Your task to perform on an android device: Show me the alarms in the clock app Image 0: 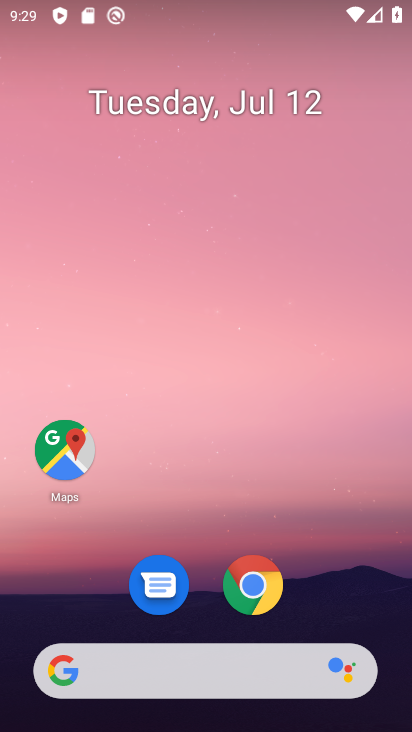
Step 0: drag from (187, 670) to (272, 163)
Your task to perform on an android device: Show me the alarms in the clock app Image 1: 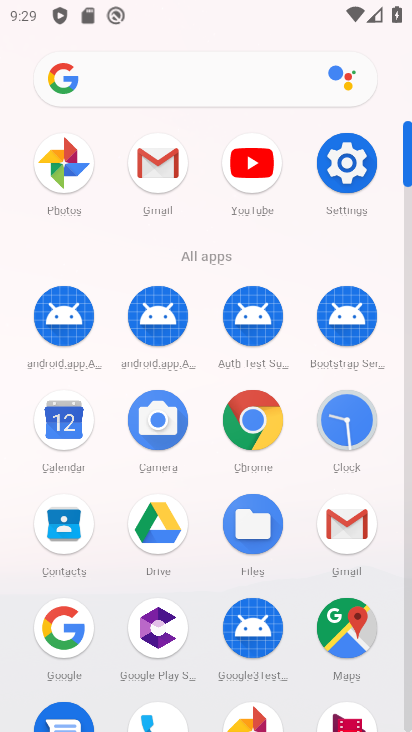
Step 1: click (350, 434)
Your task to perform on an android device: Show me the alarms in the clock app Image 2: 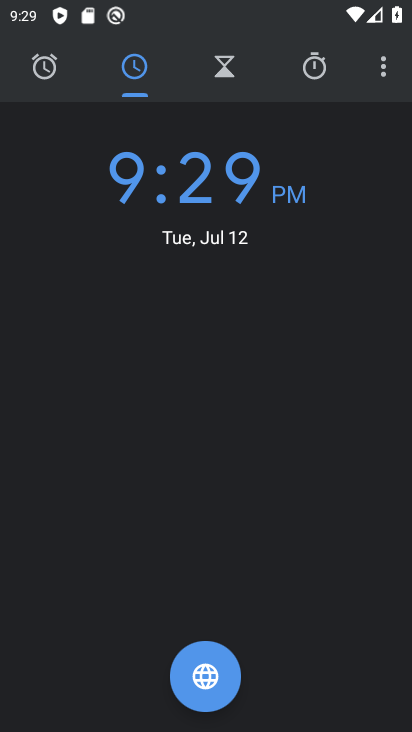
Step 2: click (35, 71)
Your task to perform on an android device: Show me the alarms in the clock app Image 3: 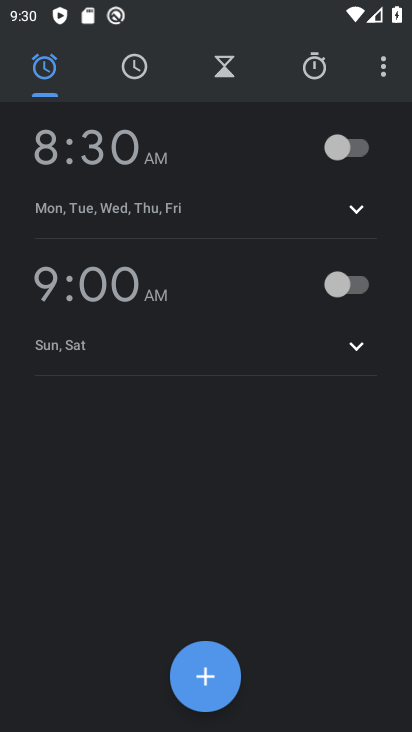
Step 3: task complete